Your task to perform on an android device: Open Yahoo.com Image 0: 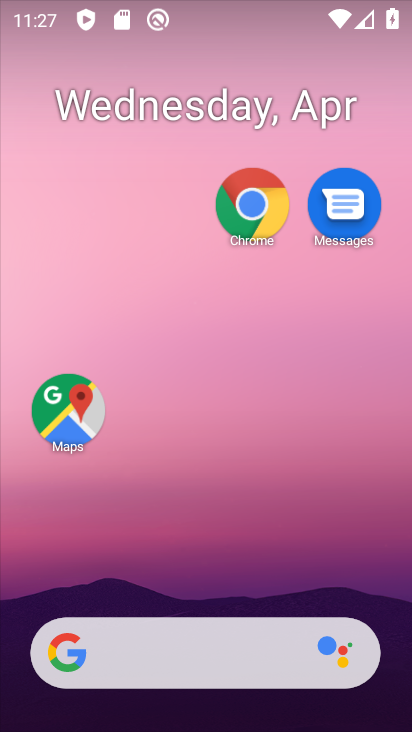
Step 0: drag from (209, 629) to (223, 30)
Your task to perform on an android device: Open Yahoo.com Image 1: 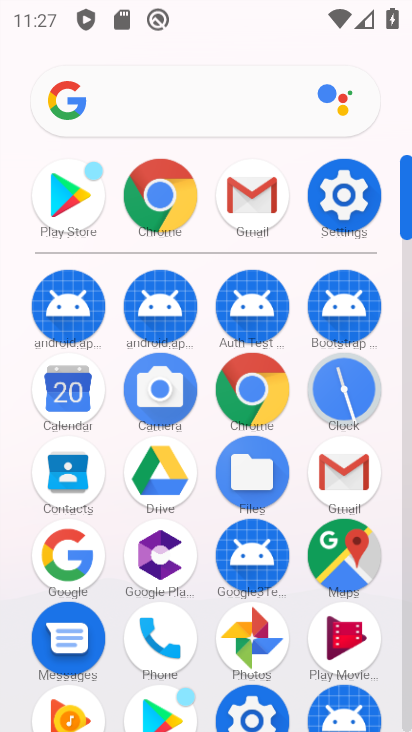
Step 1: click (242, 389)
Your task to perform on an android device: Open Yahoo.com Image 2: 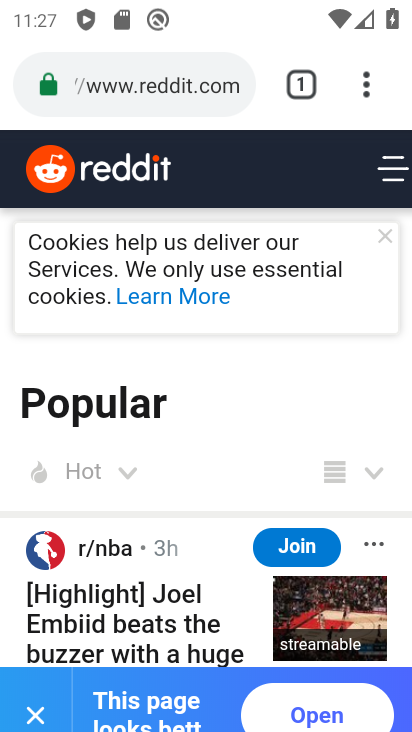
Step 2: click (278, 74)
Your task to perform on an android device: Open Yahoo.com Image 3: 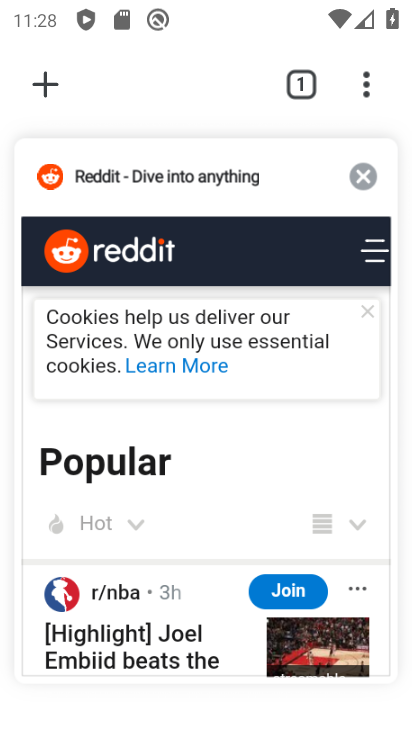
Step 3: click (39, 87)
Your task to perform on an android device: Open Yahoo.com Image 4: 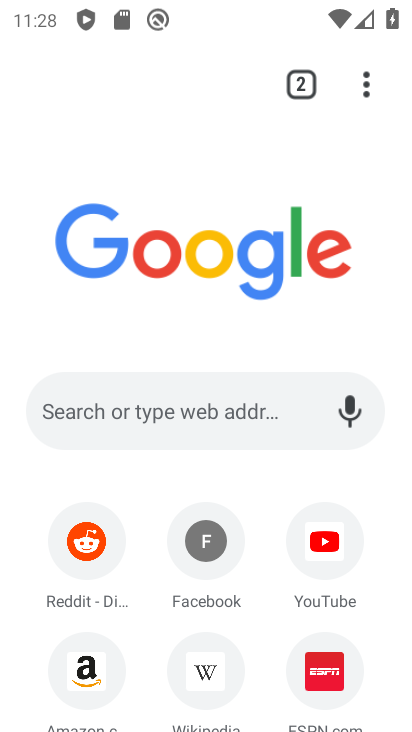
Step 4: drag from (265, 628) to (240, 407)
Your task to perform on an android device: Open Yahoo.com Image 5: 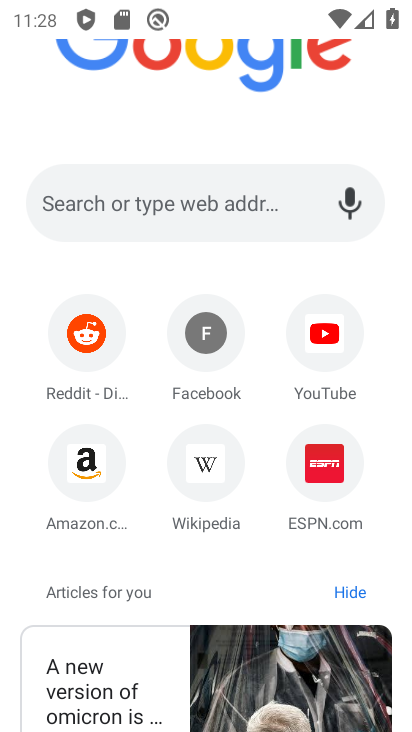
Step 5: click (194, 200)
Your task to perform on an android device: Open Yahoo.com Image 6: 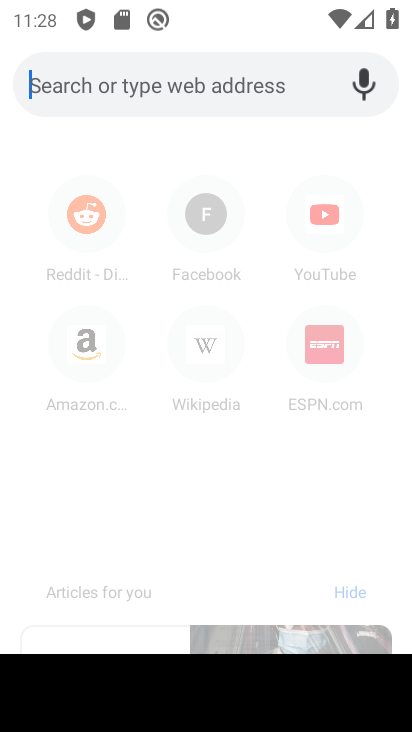
Step 6: type "yahhoo"
Your task to perform on an android device: Open Yahoo.com Image 7: 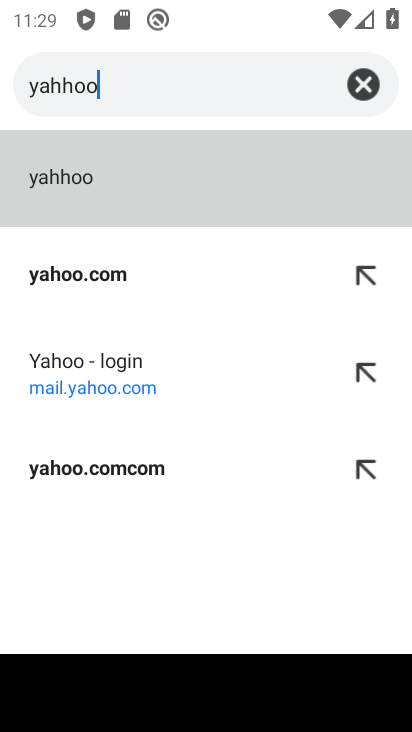
Step 7: click (102, 245)
Your task to perform on an android device: Open Yahoo.com Image 8: 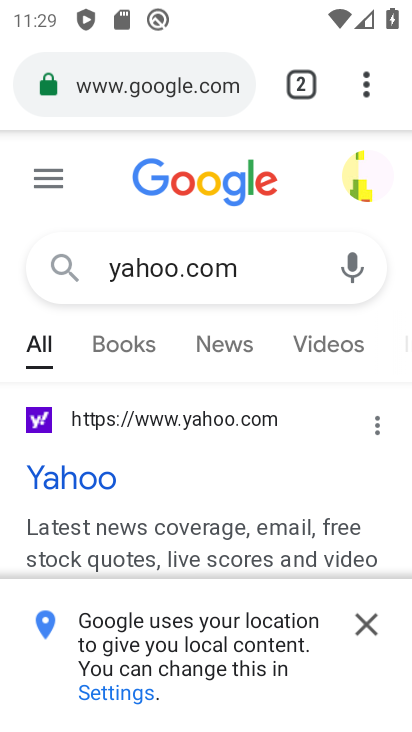
Step 8: click (71, 483)
Your task to perform on an android device: Open Yahoo.com Image 9: 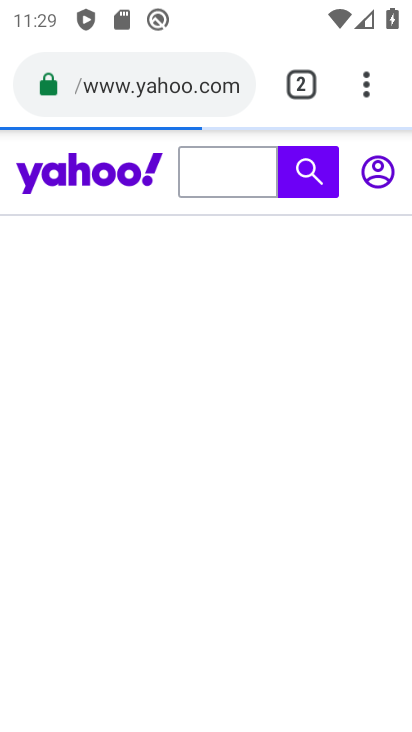
Step 9: task complete